Your task to perform on an android device: toggle airplane mode Image 0: 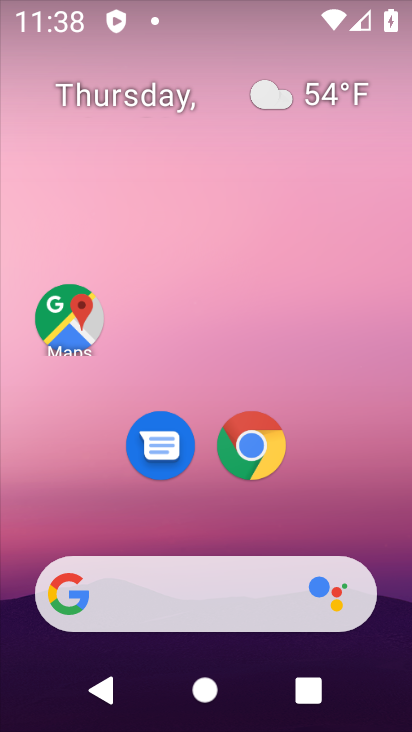
Step 0: drag from (272, 7) to (306, 450)
Your task to perform on an android device: toggle airplane mode Image 1: 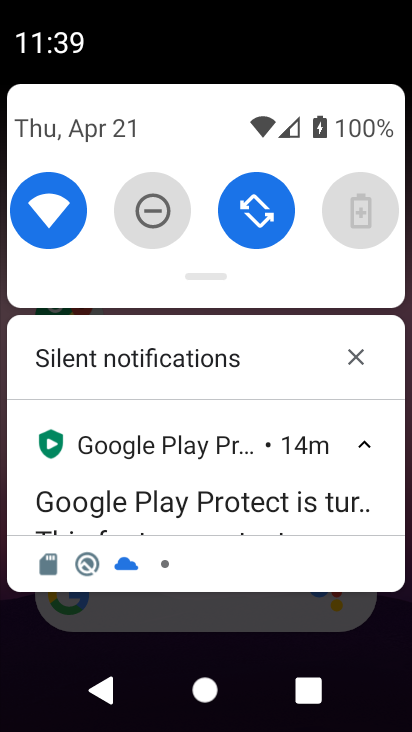
Step 1: drag from (204, 262) to (235, 617)
Your task to perform on an android device: toggle airplane mode Image 2: 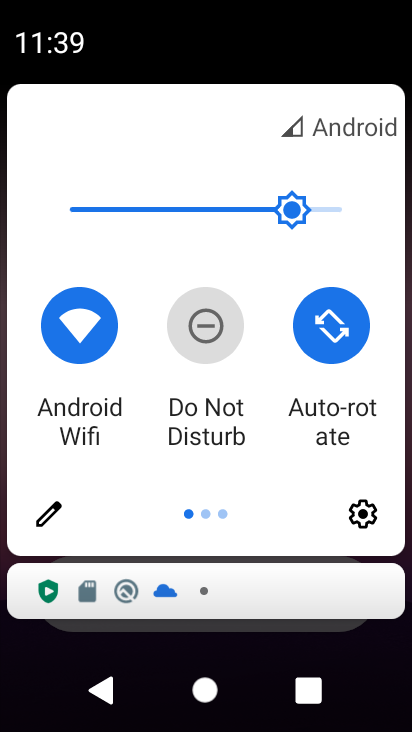
Step 2: drag from (325, 423) to (0, 377)
Your task to perform on an android device: toggle airplane mode Image 3: 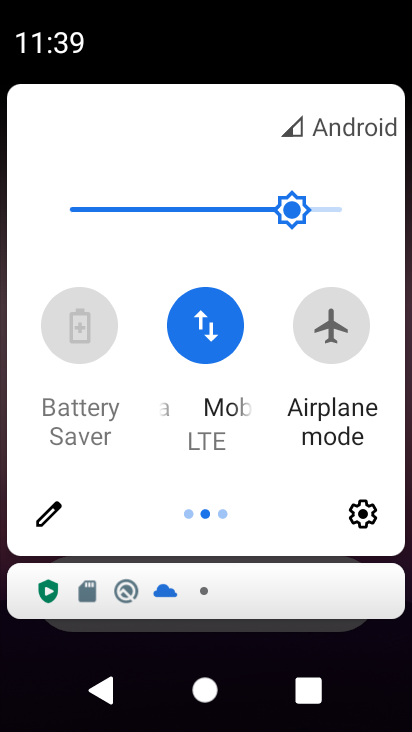
Step 3: click (313, 322)
Your task to perform on an android device: toggle airplane mode Image 4: 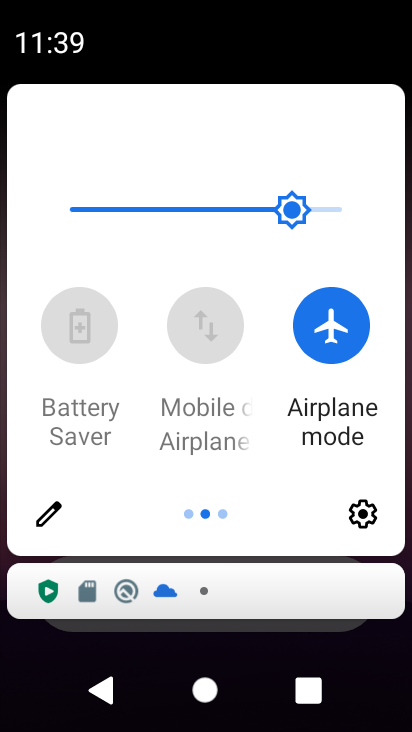
Step 4: task complete